Your task to perform on an android device: visit the assistant section in the google photos Image 0: 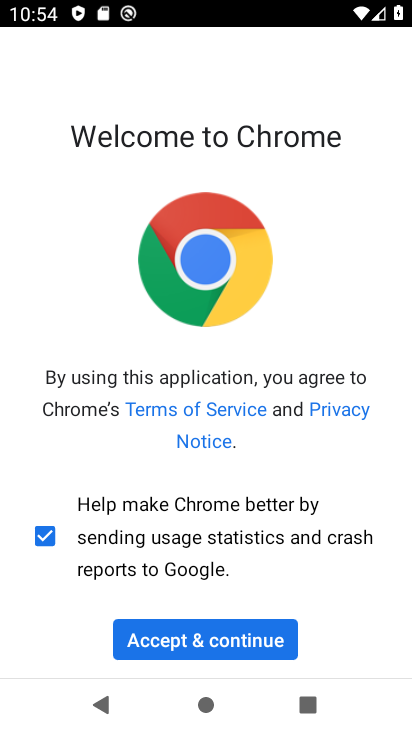
Step 0: press home button
Your task to perform on an android device: visit the assistant section in the google photos Image 1: 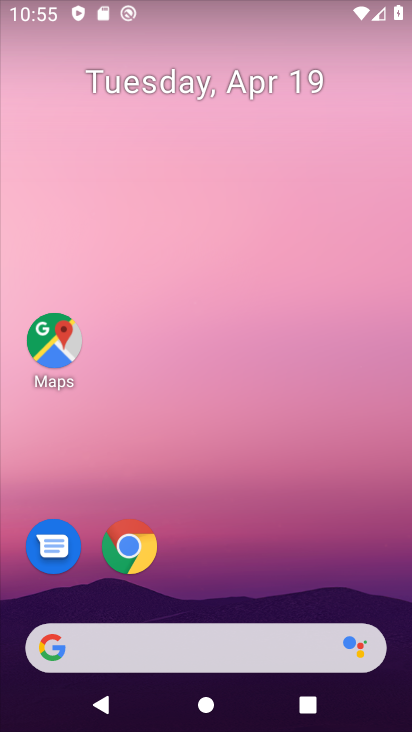
Step 1: drag from (164, 609) to (172, 69)
Your task to perform on an android device: visit the assistant section in the google photos Image 2: 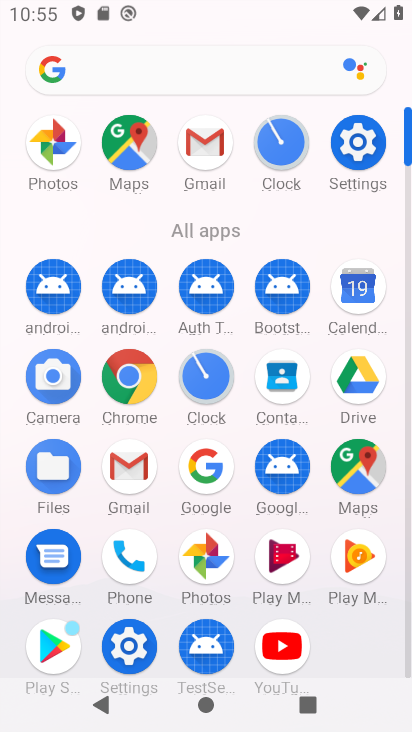
Step 2: click (47, 140)
Your task to perform on an android device: visit the assistant section in the google photos Image 3: 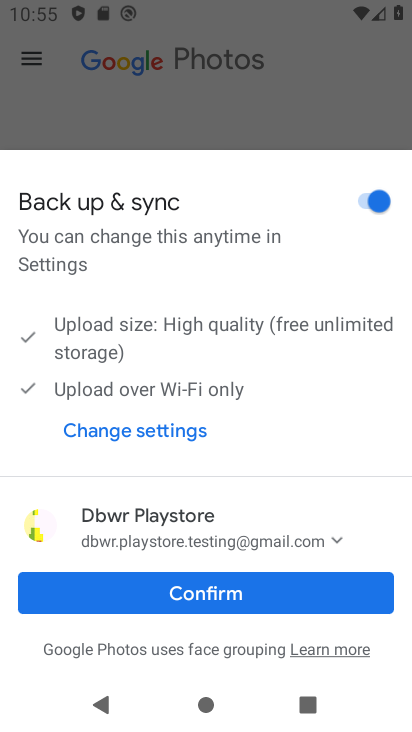
Step 3: click (179, 121)
Your task to perform on an android device: visit the assistant section in the google photos Image 4: 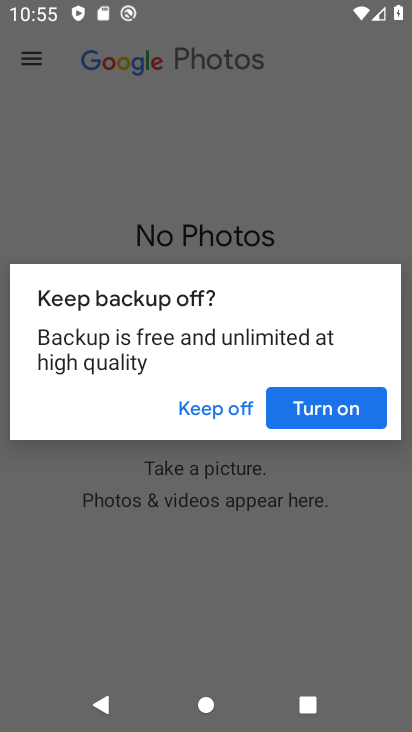
Step 4: click (207, 401)
Your task to perform on an android device: visit the assistant section in the google photos Image 5: 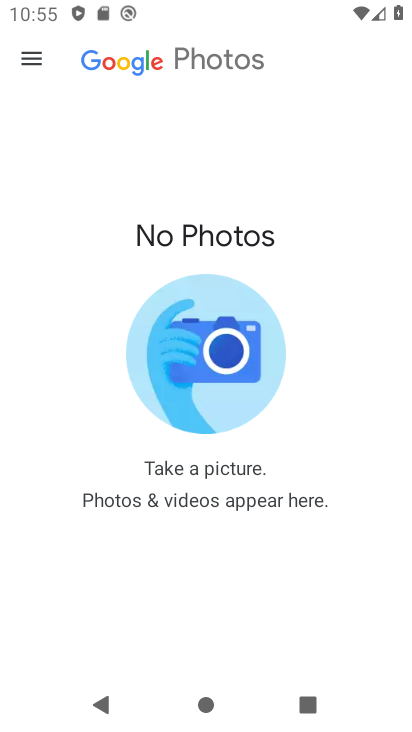
Step 5: click (38, 46)
Your task to perform on an android device: visit the assistant section in the google photos Image 6: 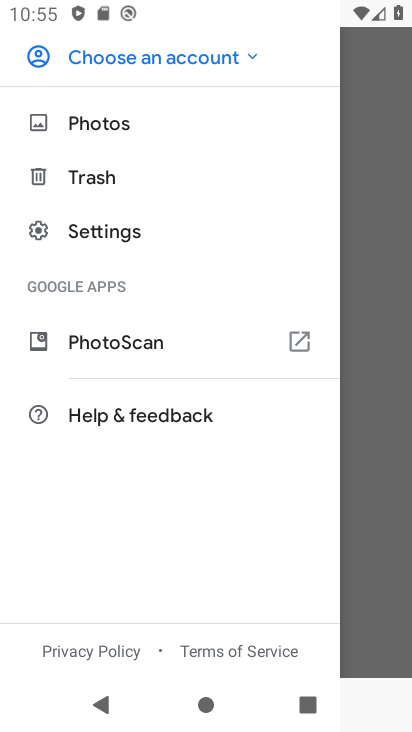
Step 6: click (229, 66)
Your task to perform on an android device: visit the assistant section in the google photos Image 7: 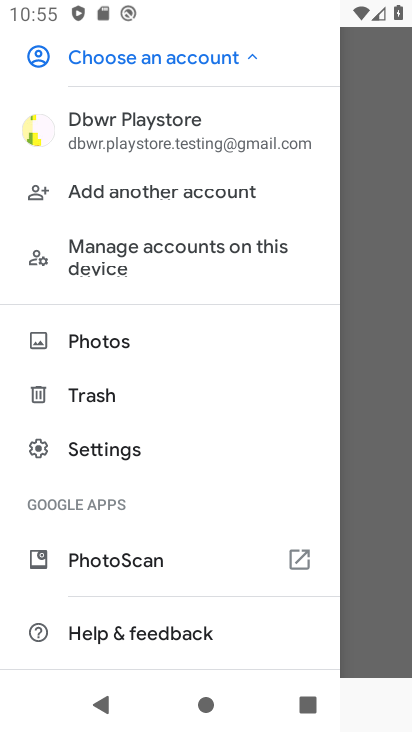
Step 7: click (214, 121)
Your task to perform on an android device: visit the assistant section in the google photos Image 8: 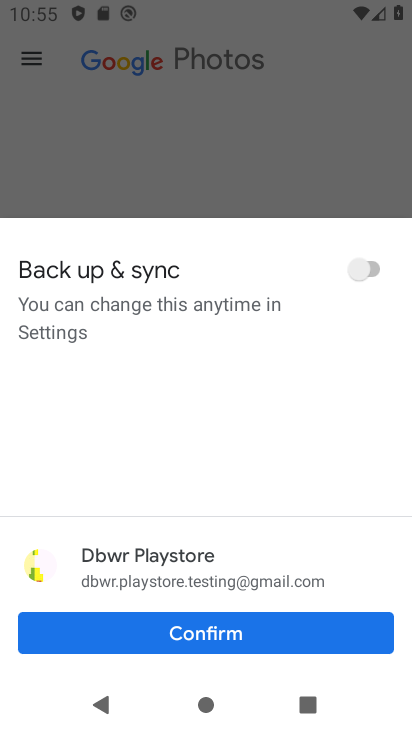
Step 8: click (157, 639)
Your task to perform on an android device: visit the assistant section in the google photos Image 9: 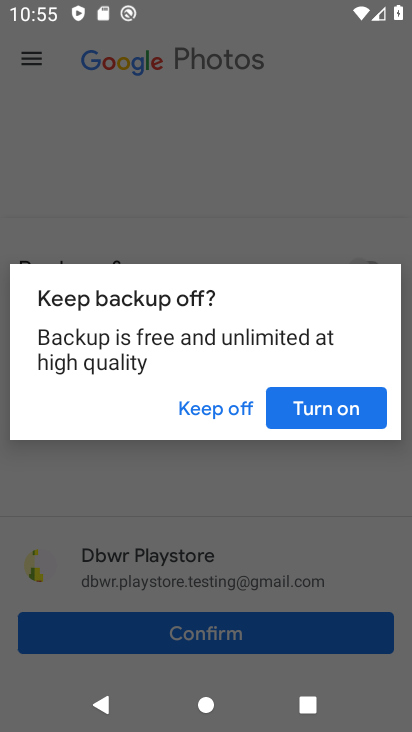
Step 9: click (292, 406)
Your task to perform on an android device: visit the assistant section in the google photos Image 10: 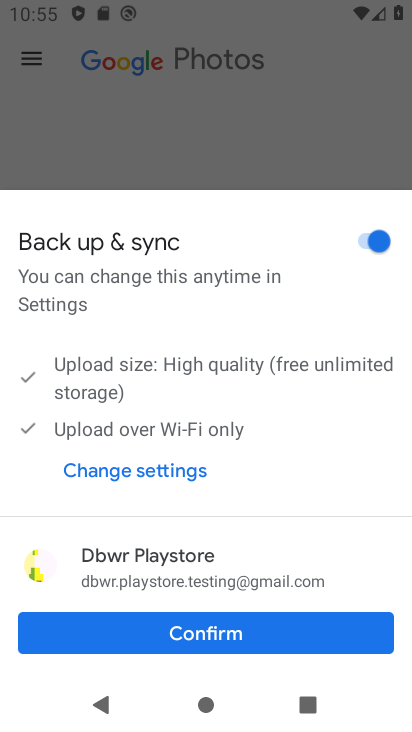
Step 10: click (239, 622)
Your task to perform on an android device: visit the assistant section in the google photos Image 11: 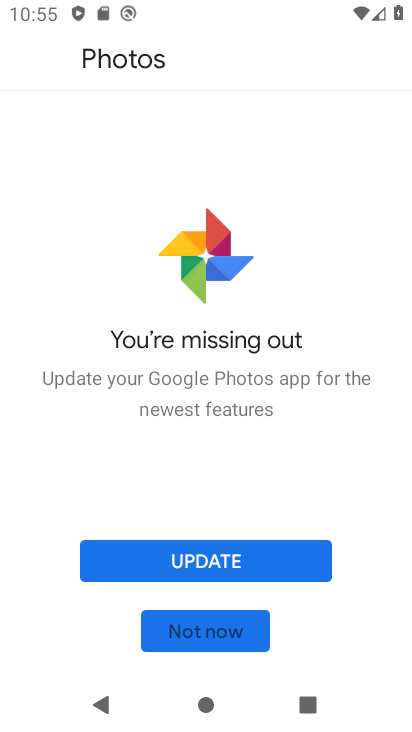
Step 11: click (239, 622)
Your task to perform on an android device: visit the assistant section in the google photos Image 12: 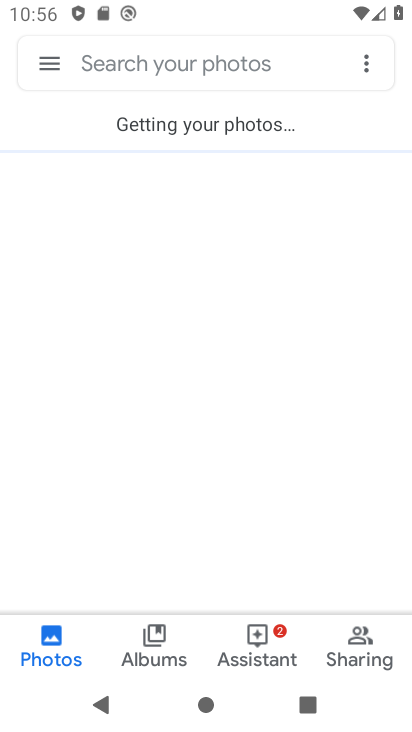
Step 12: click (250, 630)
Your task to perform on an android device: visit the assistant section in the google photos Image 13: 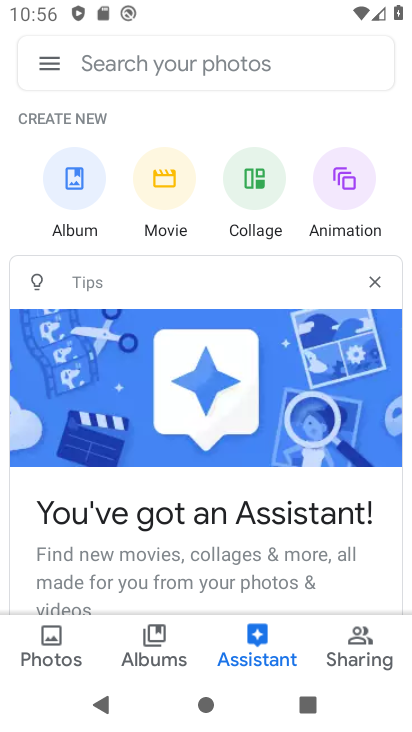
Step 13: task complete